Your task to perform on an android device: Open Google Chrome and open the bookmarks view Image 0: 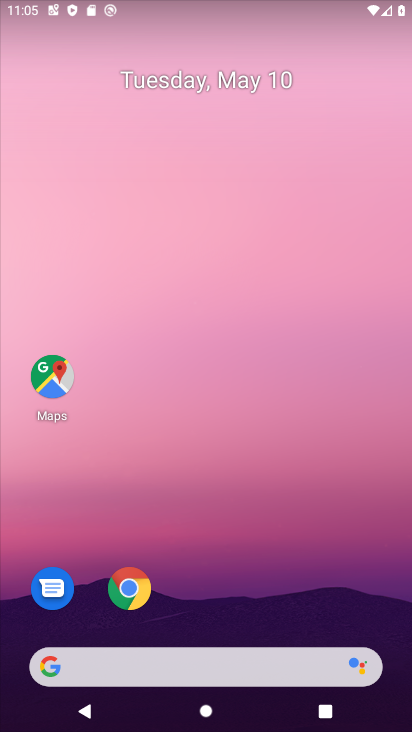
Step 0: drag from (389, 678) to (170, 64)
Your task to perform on an android device: Open Google Chrome and open the bookmarks view Image 1: 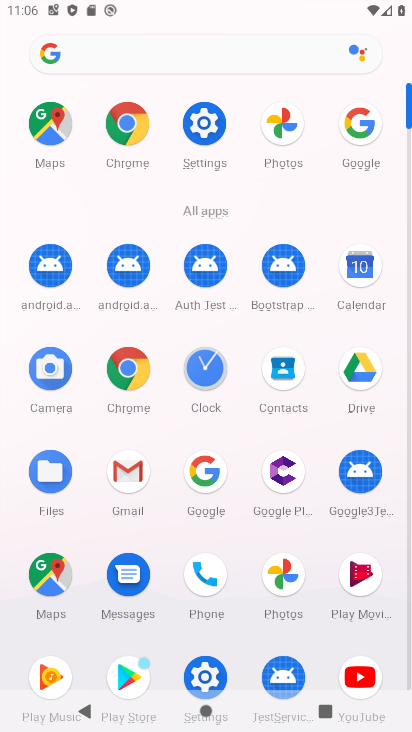
Step 1: click (122, 121)
Your task to perform on an android device: Open Google Chrome and open the bookmarks view Image 2: 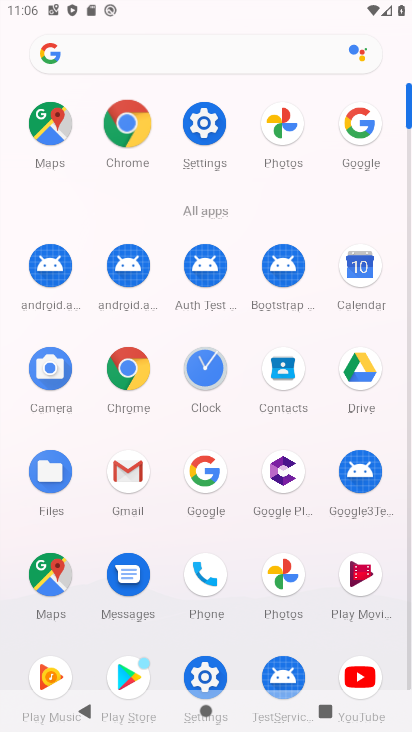
Step 2: click (122, 121)
Your task to perform on an android device: Open Google Chrome and open the bookmarks view Image 3: 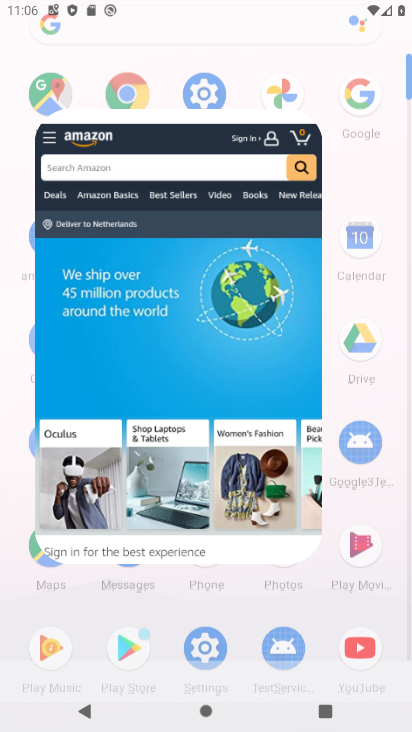
Step 3: click (122, 121)
Your task to perform on an android device: Open Google Chrome and open the bookmarks view Image 4: 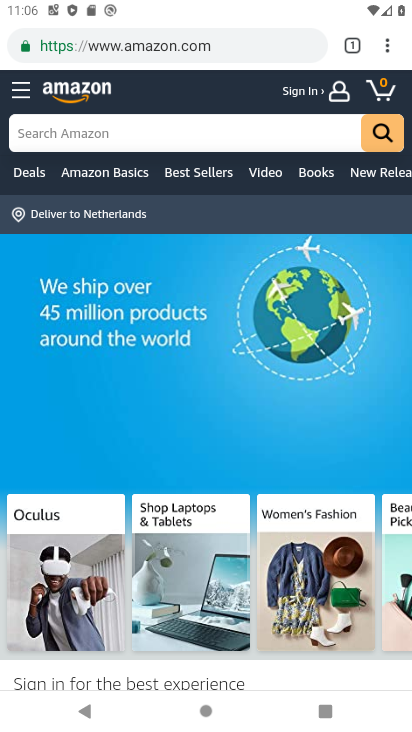
Step 4: drag from (382, 46) to (225, 169)
Your task to perform on an android device: Open Google Chrome and open the bookmarks view Image 5: 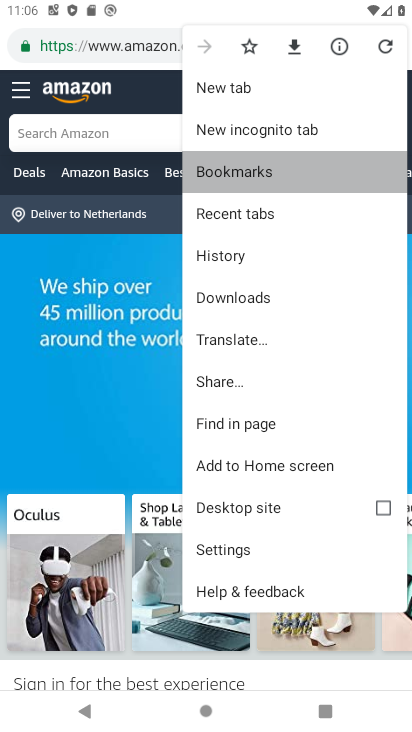
Step 5: click (225, 170)
Your task to perform on an android device: Open Google Chrome and open the bookmarks view Image 6: 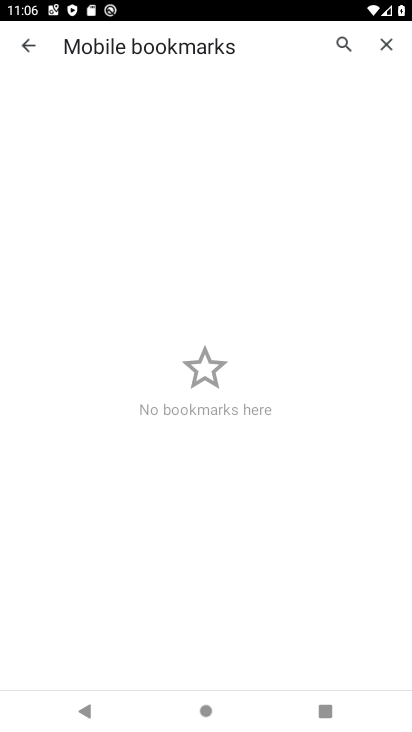
Step 6: task complete